Your task to perform on an android device: Search for "logitech g502" on bestbuy.com, select the first entry, add it to the cart, then select checkout. Image 0: 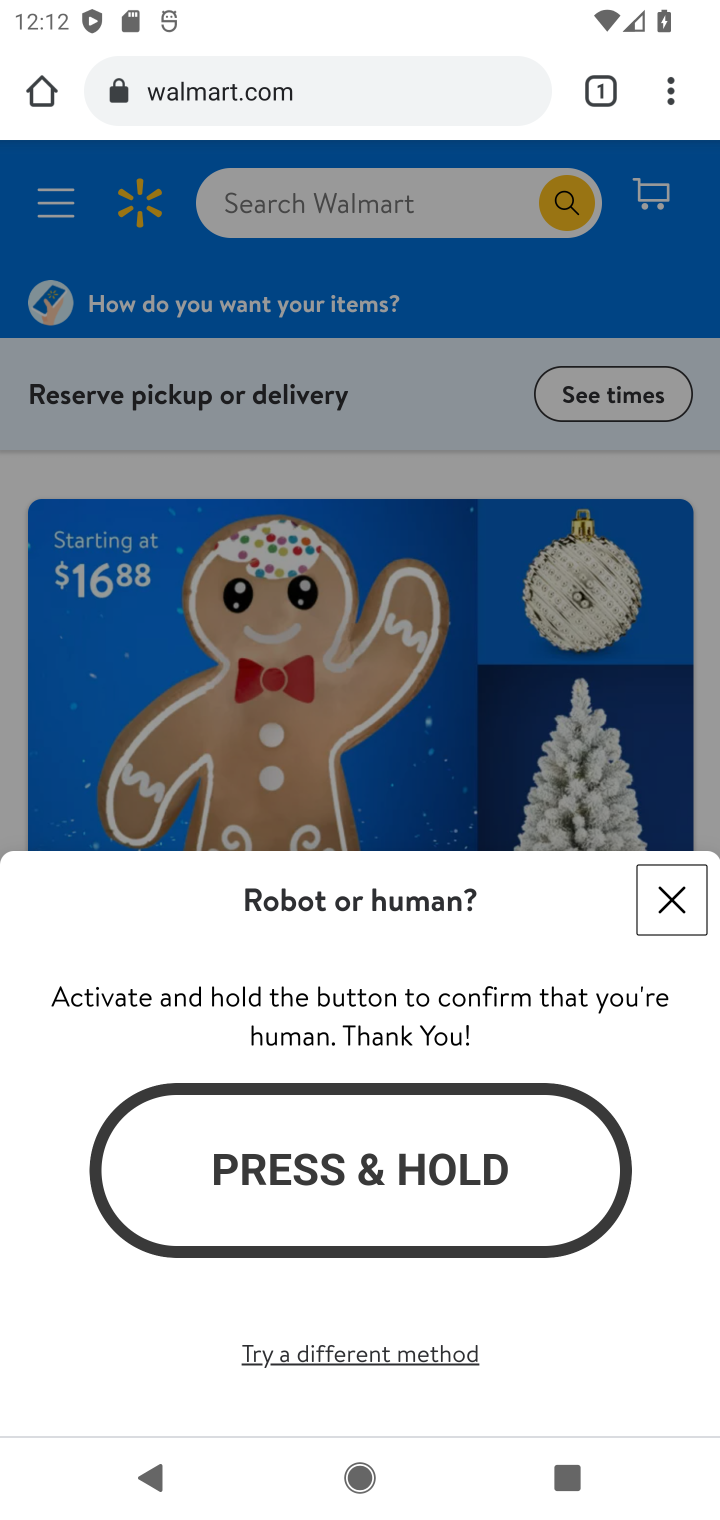
Step 0: click (362, 103)
Your task to perform on an android device: Search for "logitech g502" on bestbuy.com, select the first entry, add it to the cart, then select checkout. Image 1: 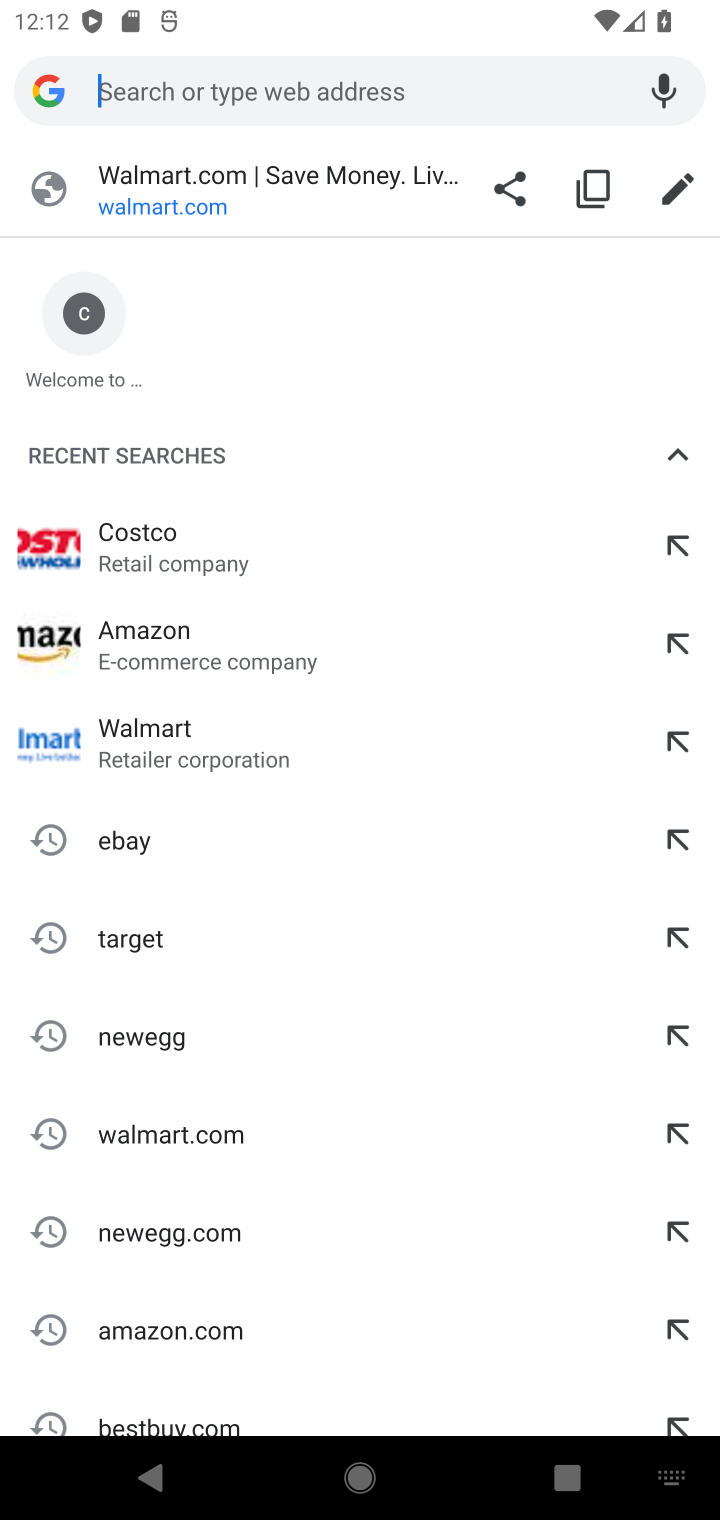
Step 1: type "bestbuy"
Your task to perform on an android device: Search for "logitech g502" on bestbuy.com, select the first entry, add it to the cart, then select checkout. Image 2: 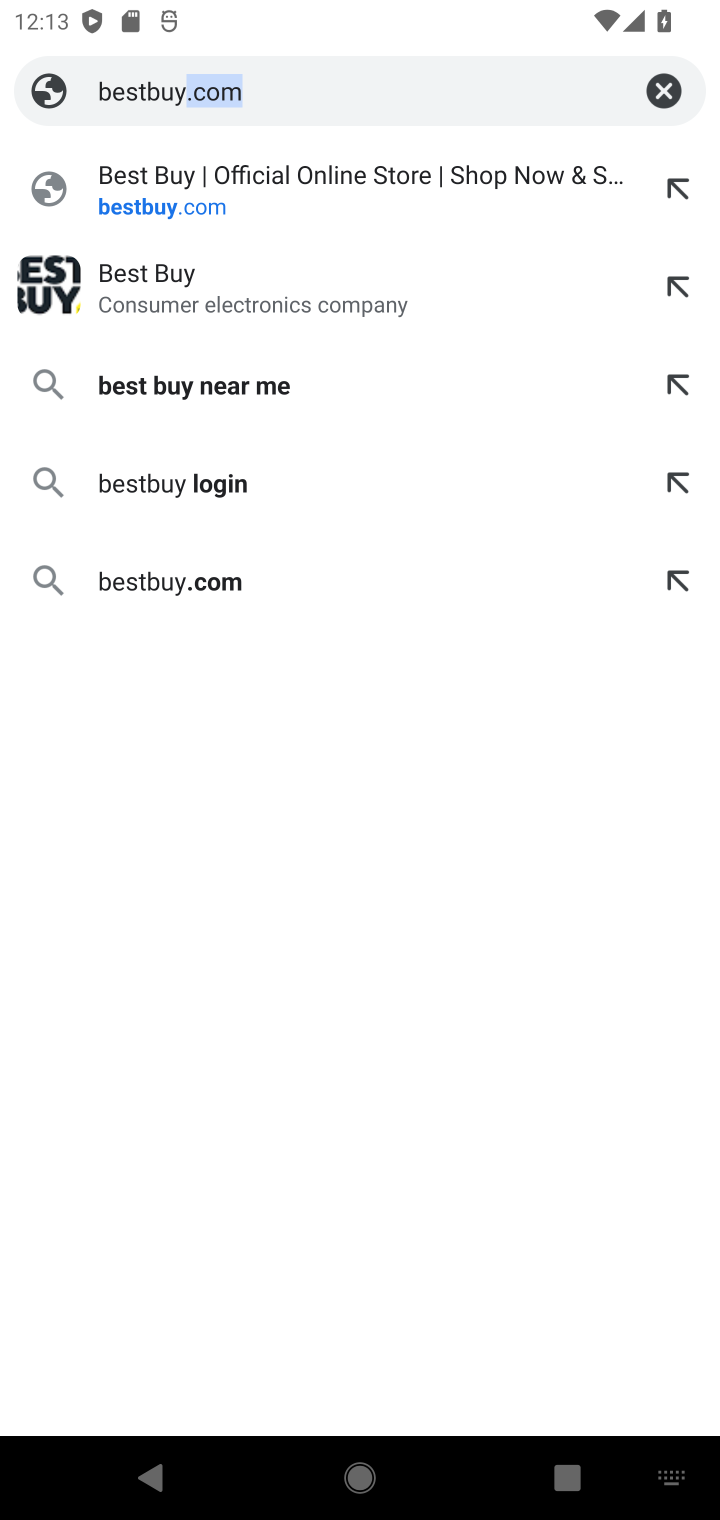
Step 2: click (250, 200)
Your task to perform on an android device: Search for "logitech g502" on bestbuy.com, select the first entry, add it to the cart, then select checkout. Image 3: 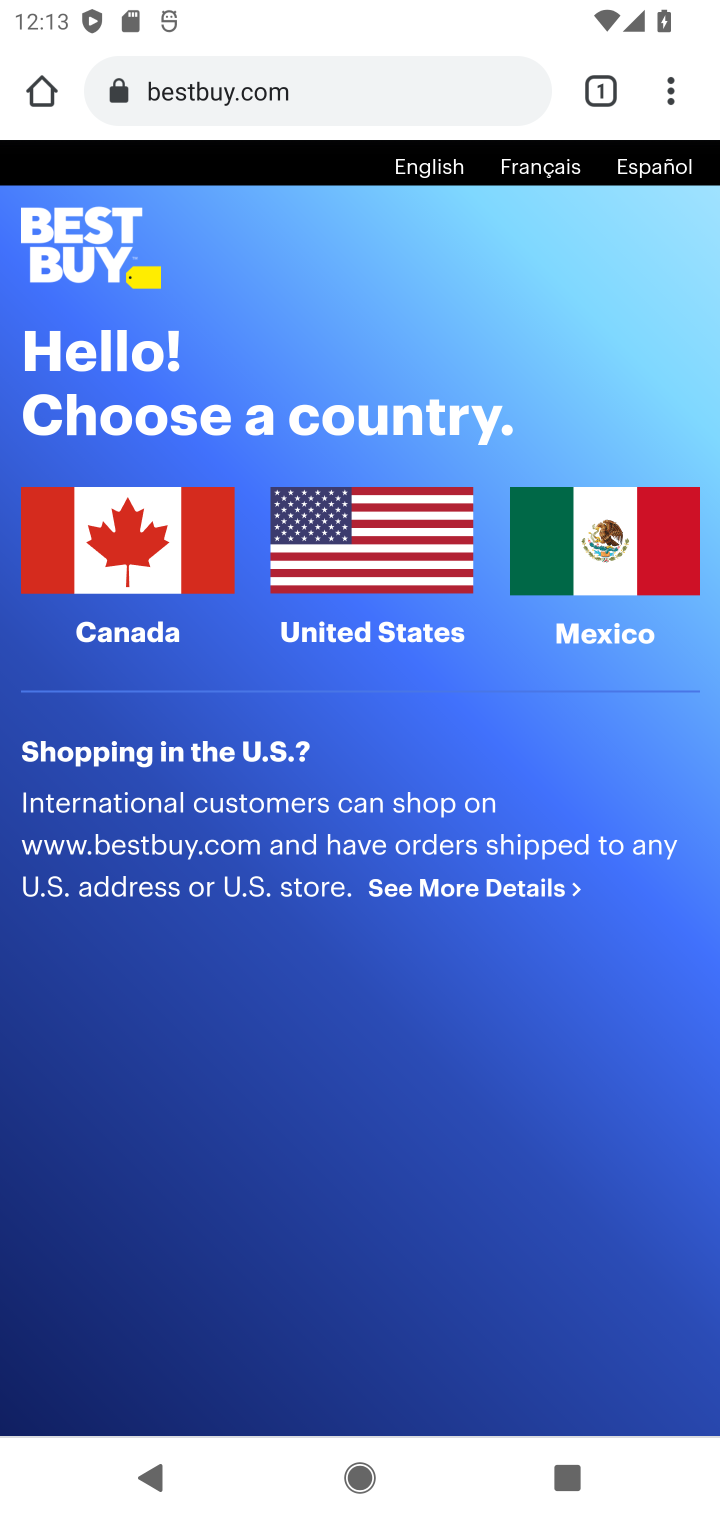
Step 3: task complete